Your task to perform on an android device: open device folders in google photos Image 0: 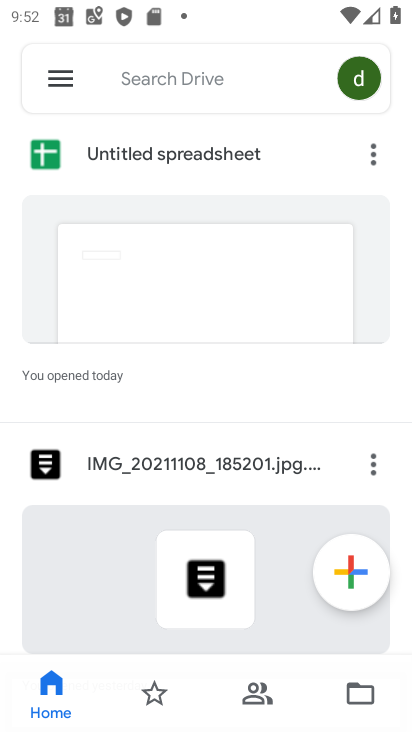
Step 0: press home button
Your task to perform on an android device: open device folders in google photos Image 1: 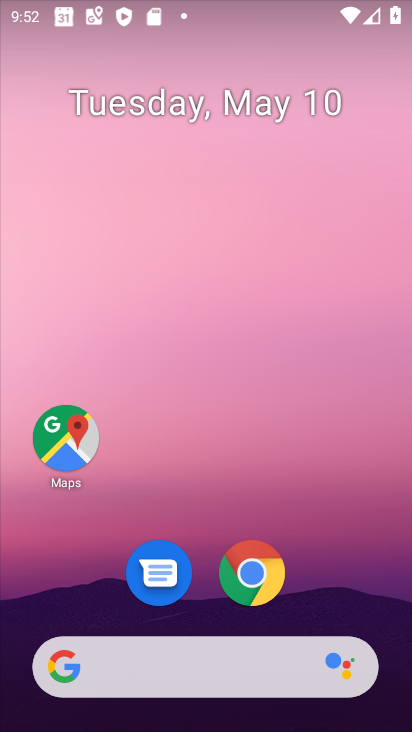
Step 1: drag from (322, 590) to (178, 170)
Your task to perform on an android device: open device folders in google photos Image 2: 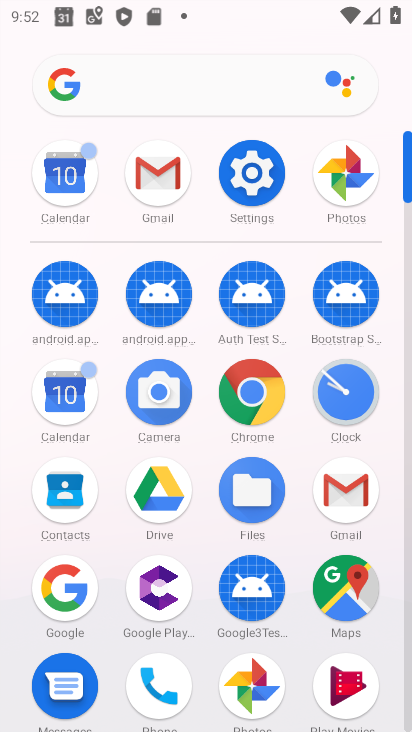
Step 2: click (335, 176)
Your task to perform on an android device: open device folders in google photos Image 3: 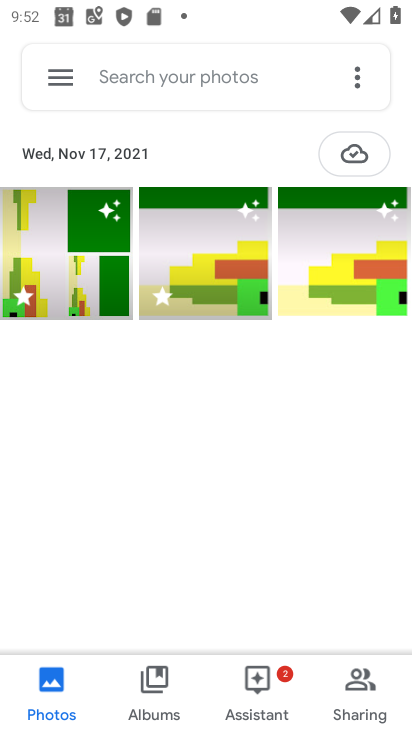
Step 3: click (60, 65)
Your task to perform on an android device: open device folders in google photos Image 4: 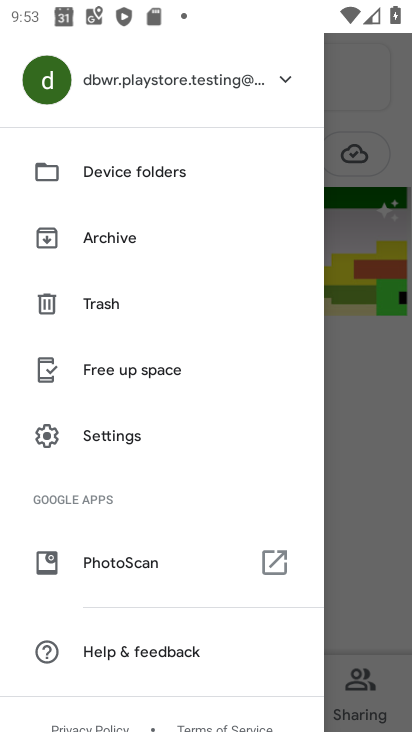
Step 4: click (112, 174)
Your task to perform on an android device: open device folders in google photos Image 5: 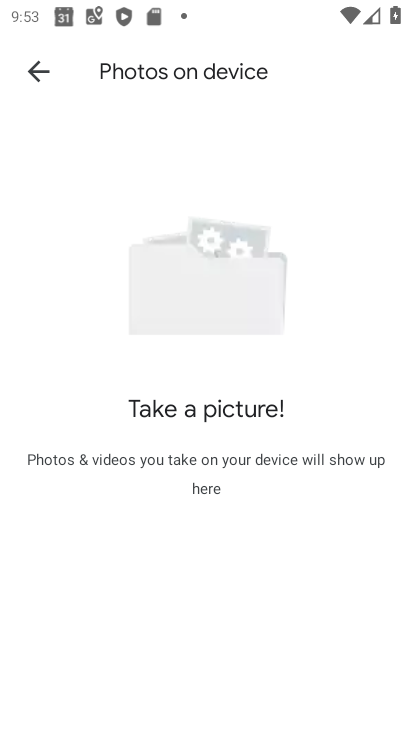
Step 5: task complete